Your task to perform on an android device: Is it going to rain this weekend? Image 0: 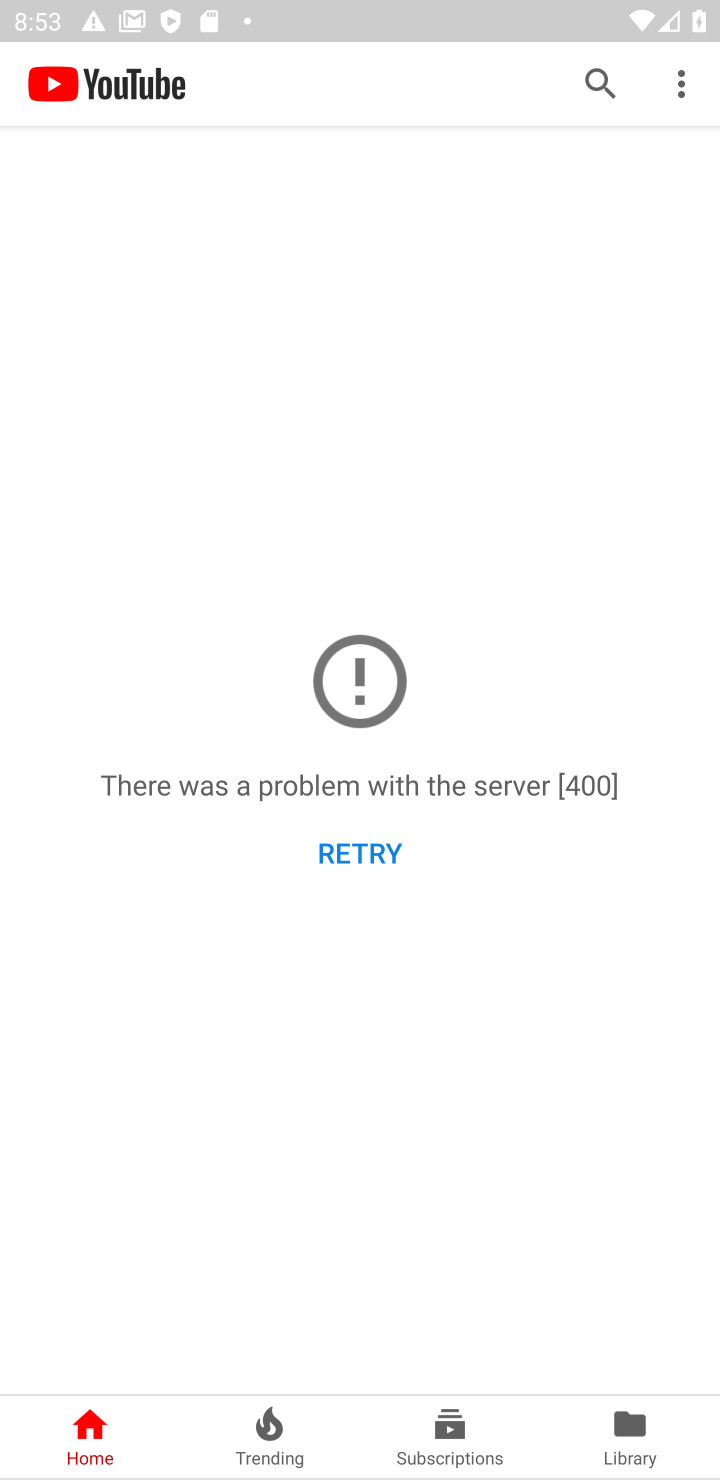
Step 0: press home button
Your task to perform on an android device: Is it going to rain this weekend? Image 1: 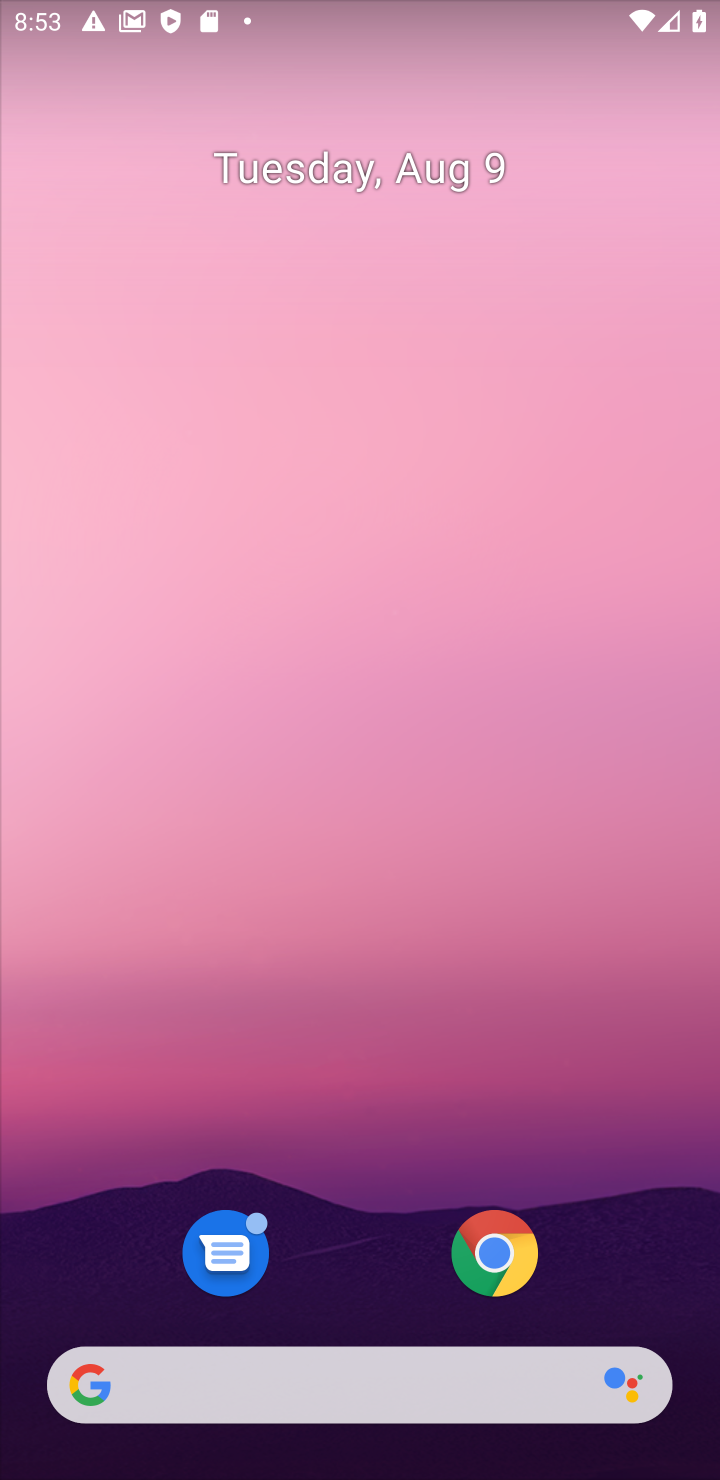
Step 1: drag from (384, 1163) to (484, 3)
Your task to perform on an android device: Is it going to rain this weekend? Image 2: 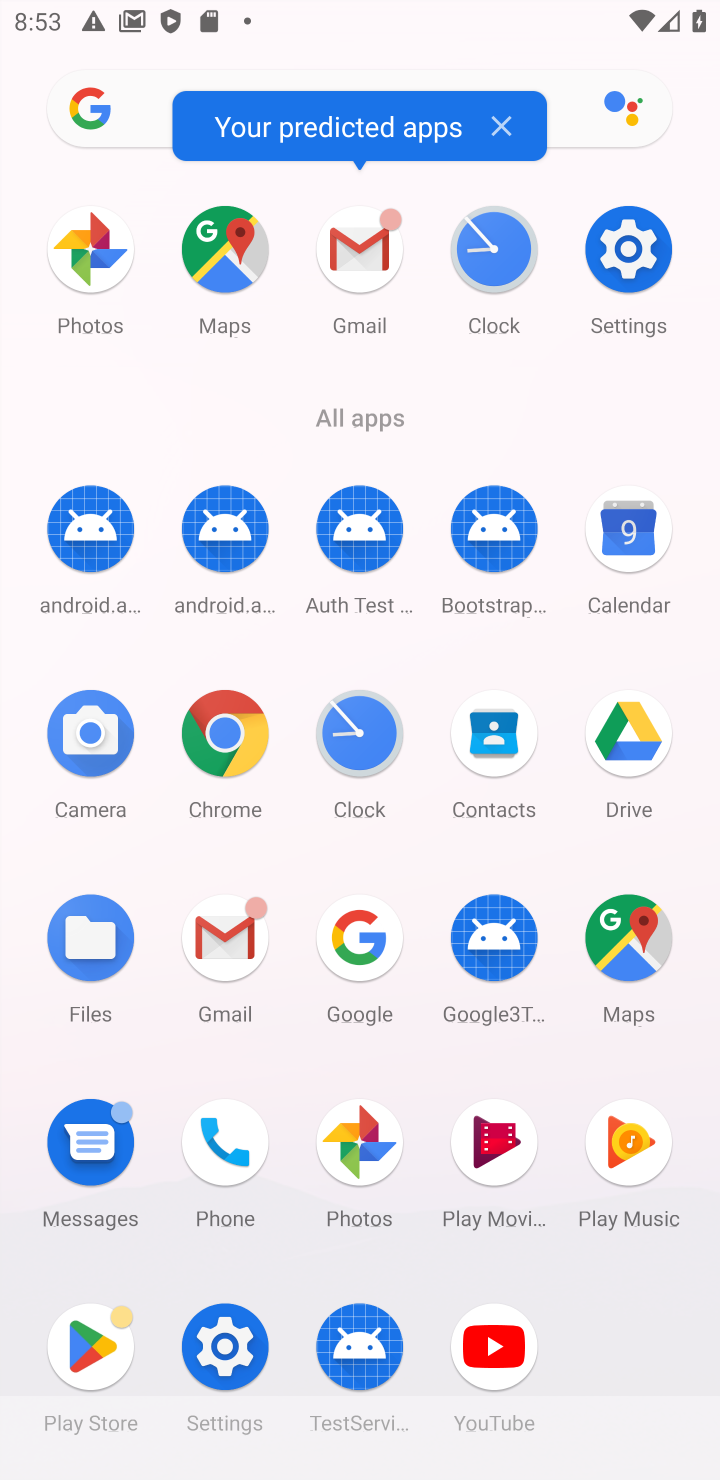
Step 2: click (221, 728)
Your task to perform on an android device: Is it going to rain this weekend? Image 3: 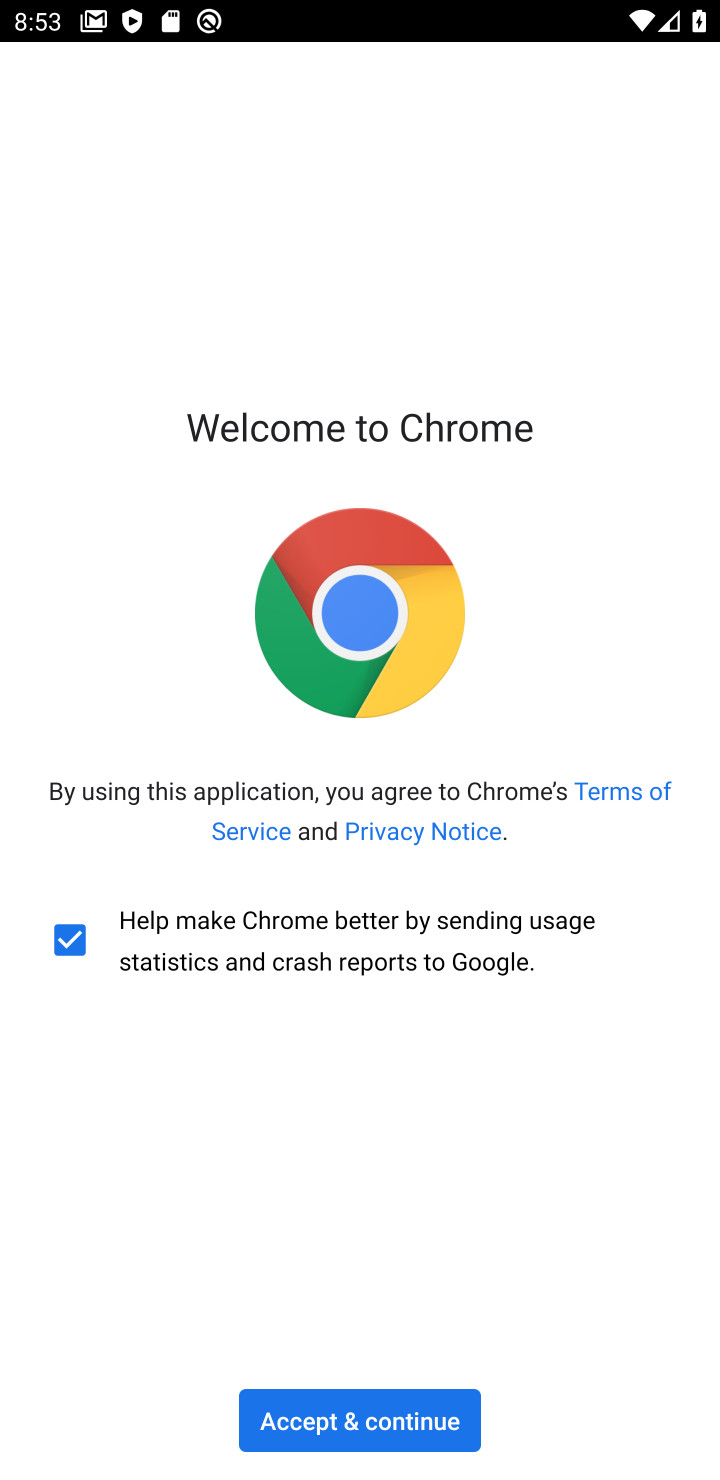
Step 3: click (447, 1422)
Your task to perform on an android device: Is it going to rain this weekend? Image 4: 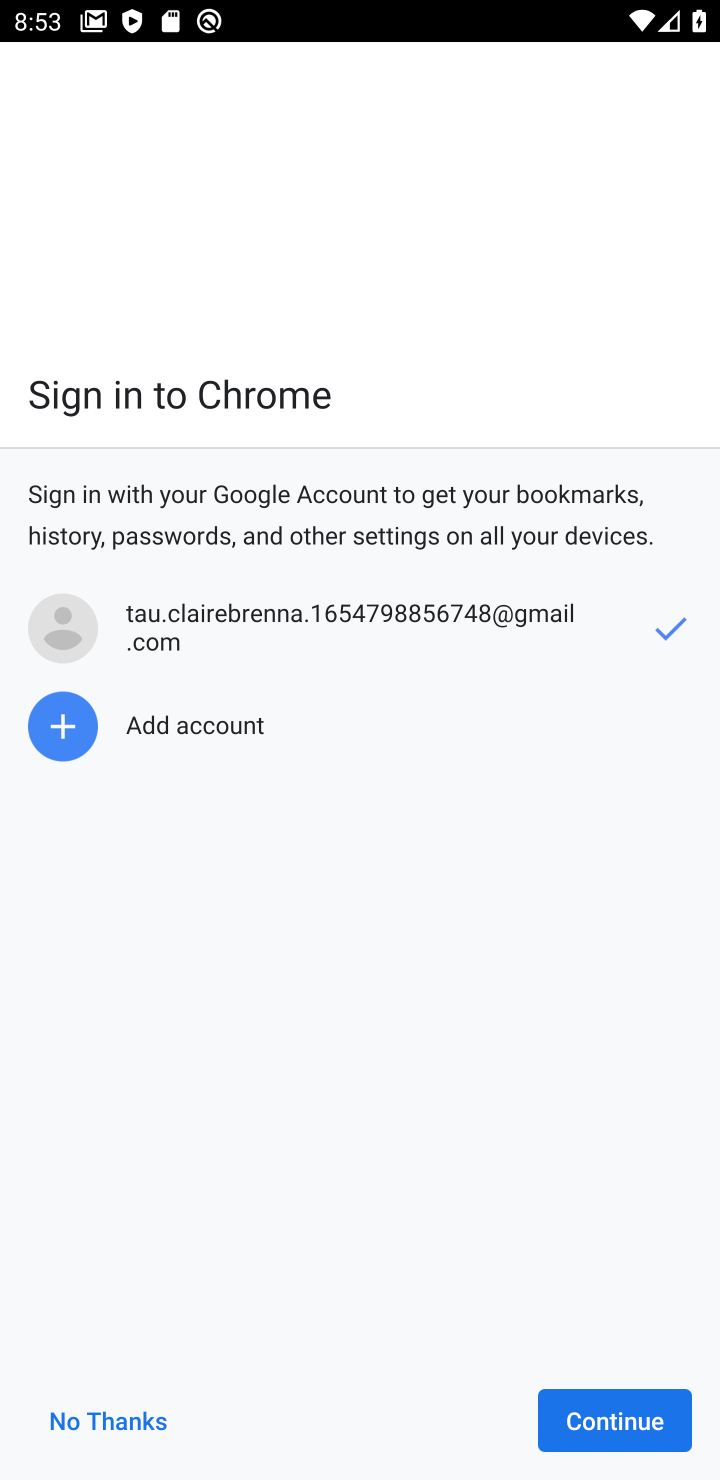
Step 4: click (629, 1421)
Your task to perform on an android device: Is it going to rain this weekend? Image 5: 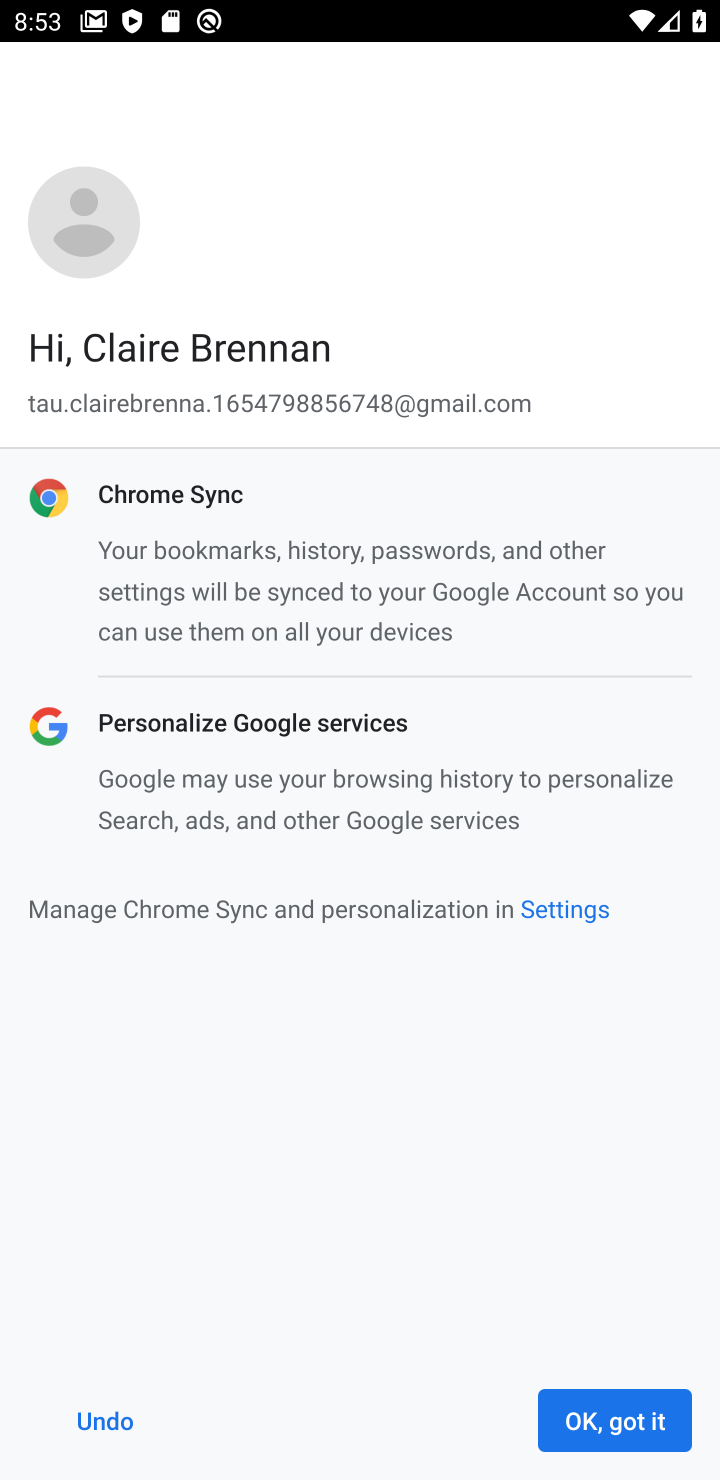
Step 5: click (629, 1421)
Your task to perform on an android device: Is it going to rain this weekend? Image 6: 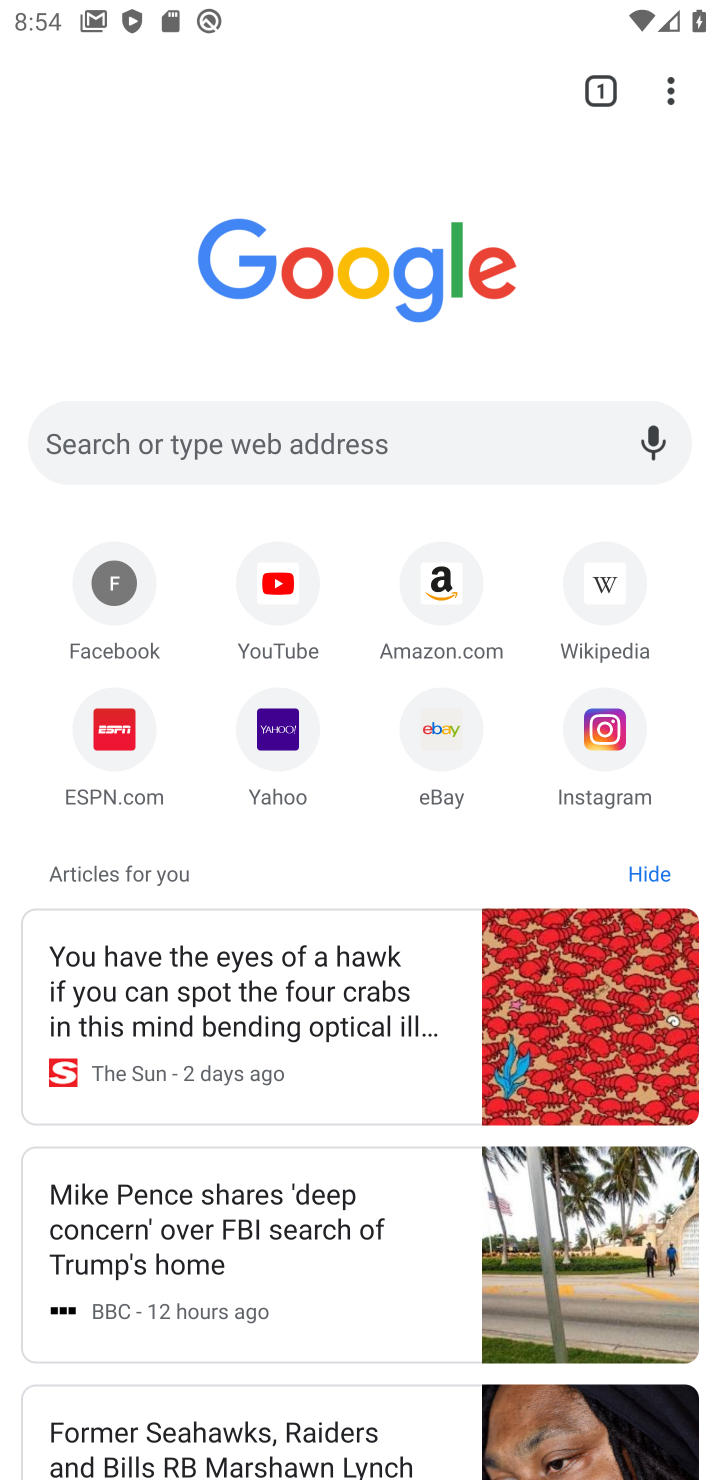
Step 6: click (407, 444)
Your task to perform on an android device: Is it going to rain this weekend? Image 7: 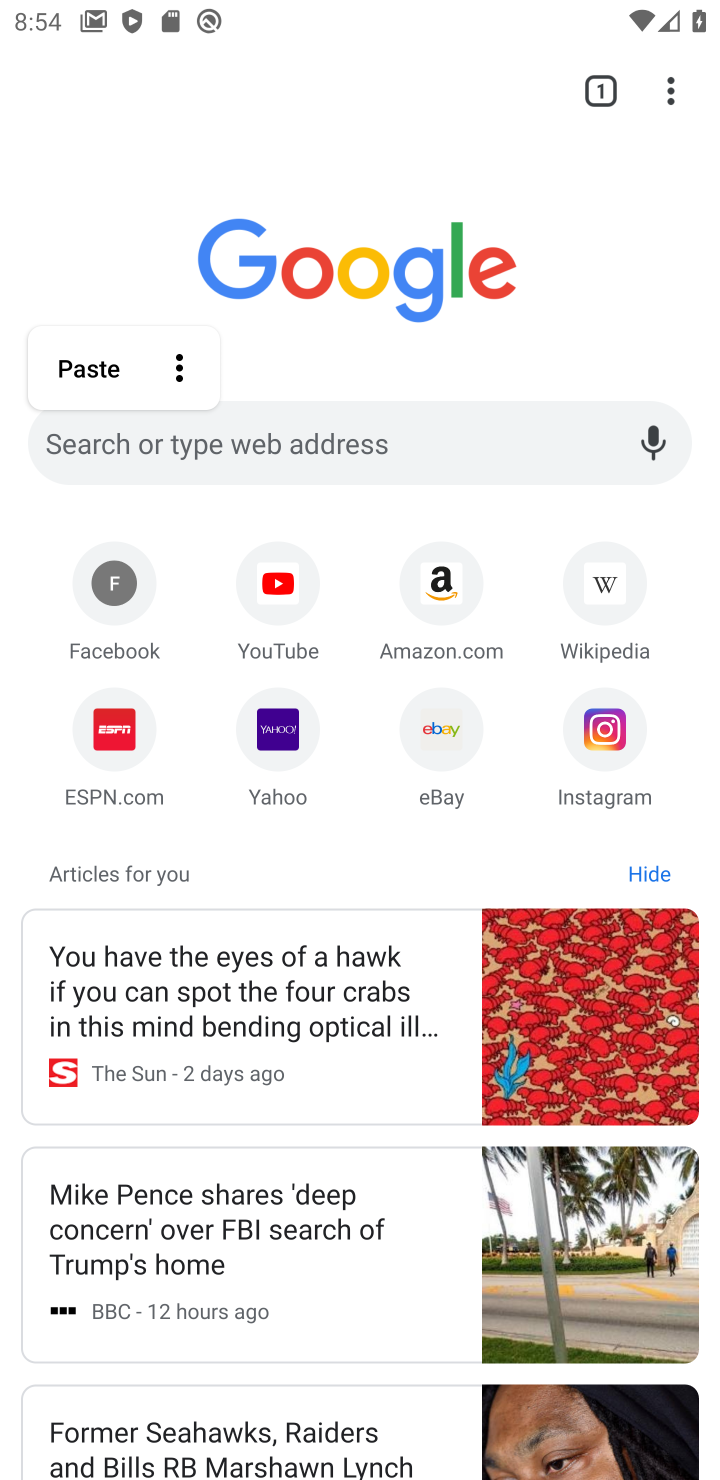
Step 7: type "weather"
Your task to perform on an android device: Is it going to rain this weekend? Image 8: 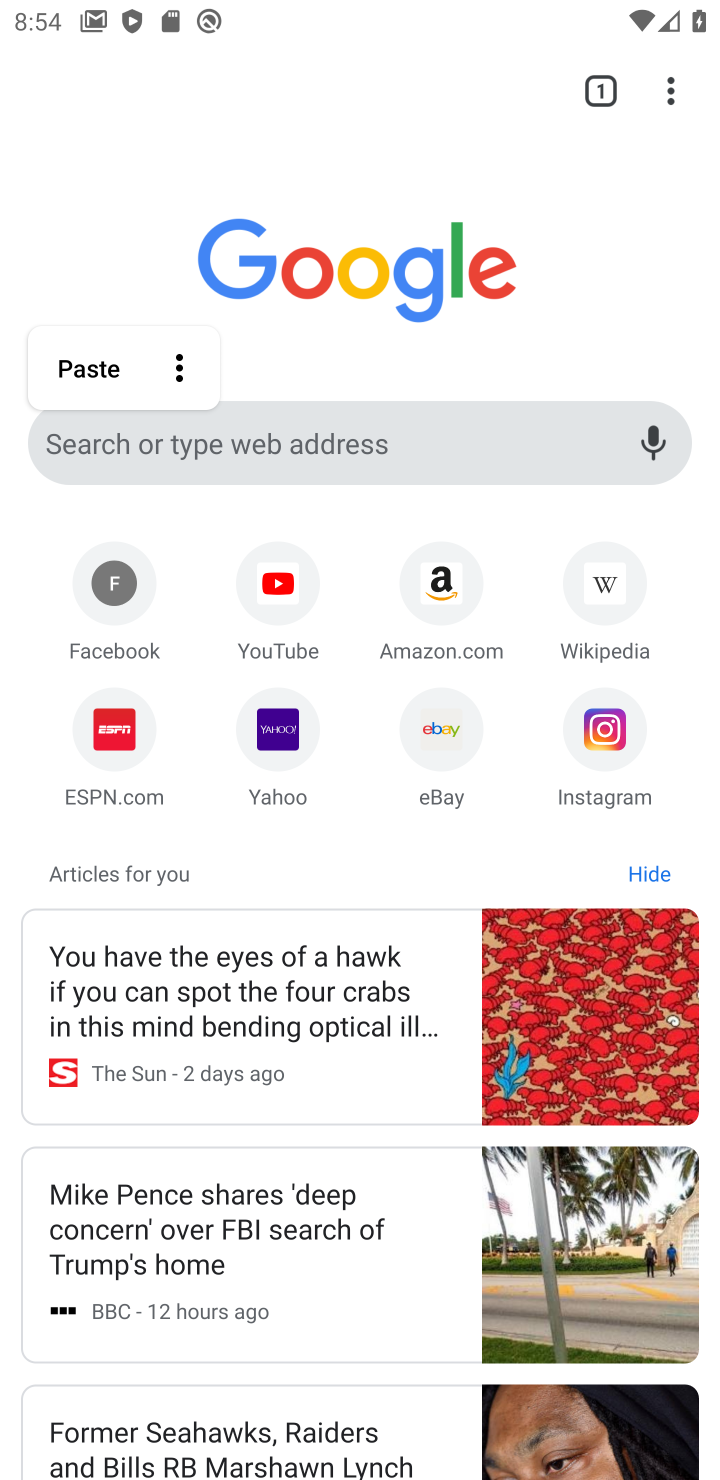
Step 8: click (457, 440)
Your task to perform on an android device: Is it going to rain this weekend? Image 9: 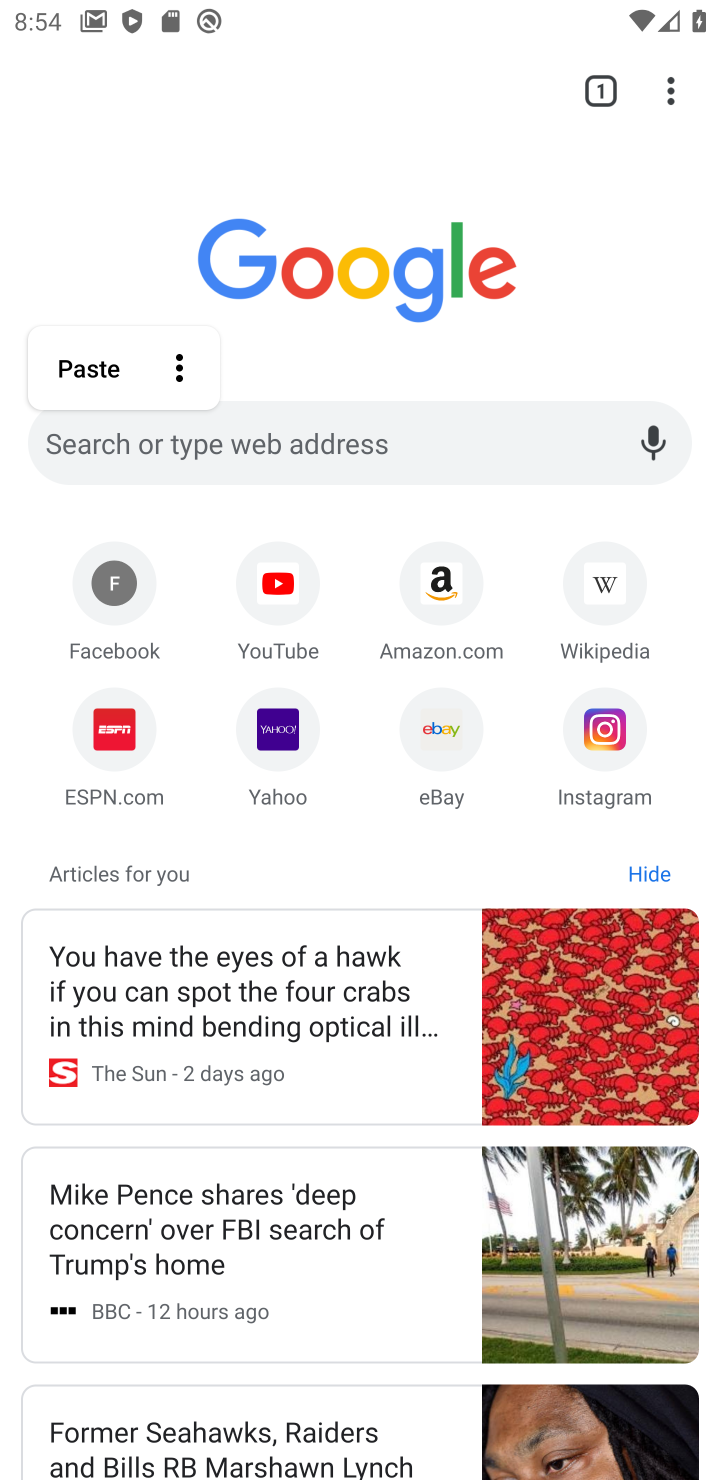
Step 9: type "weather"
Your task to perform on an android device: Is it going to rain this weekend? Image 10: 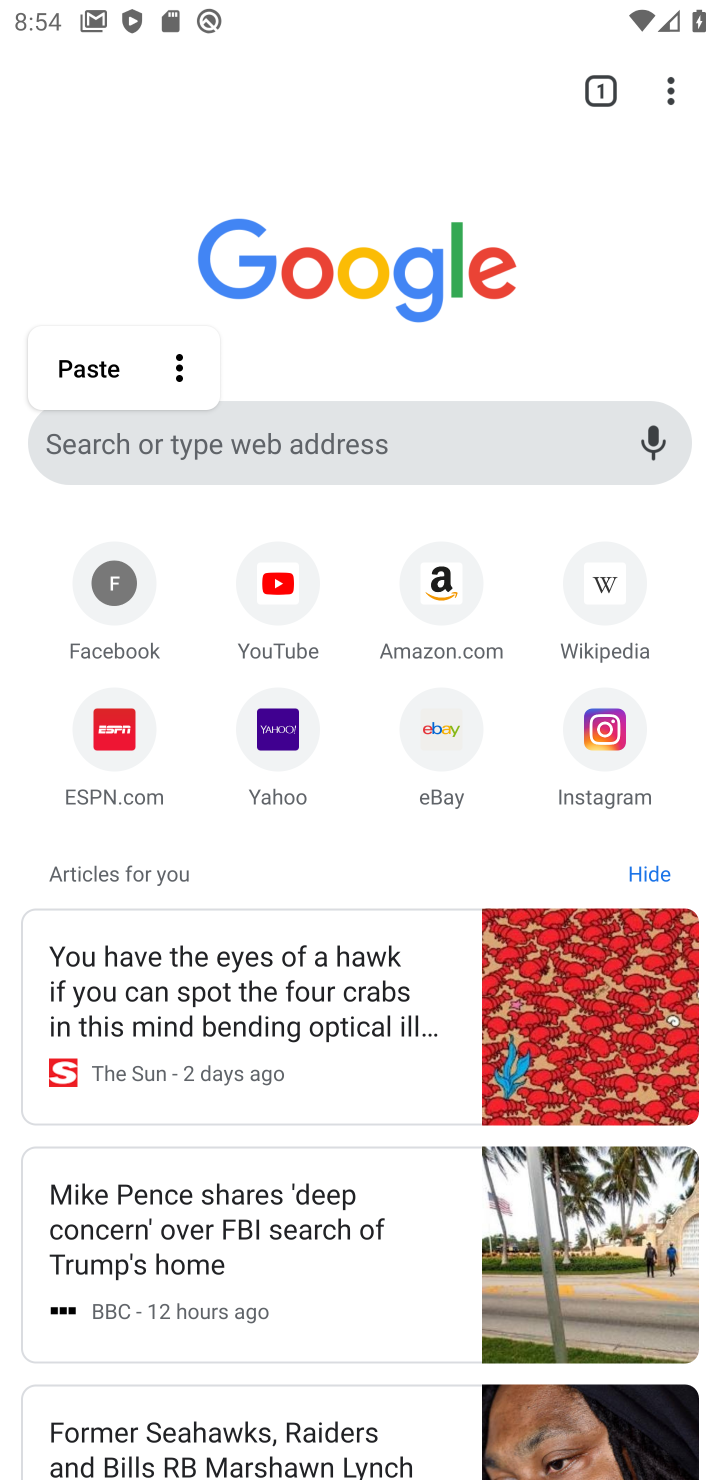
Step 10: click (120, 490)
Your task to perform on an android device: Is it going to rain this weekend? Image 11: 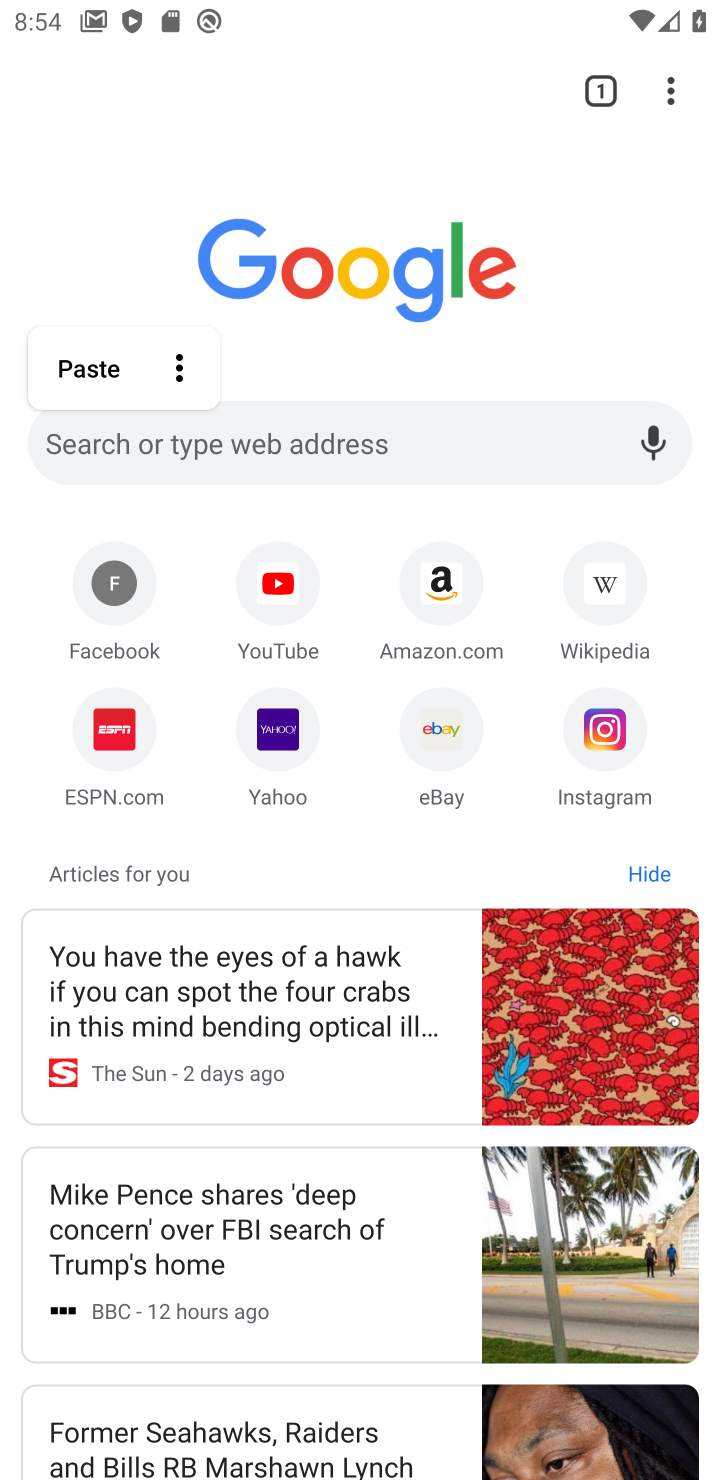
Step 11: click (113, 344)
Your task to perform on an android device: Is it going to rain this weekend? Image 12: 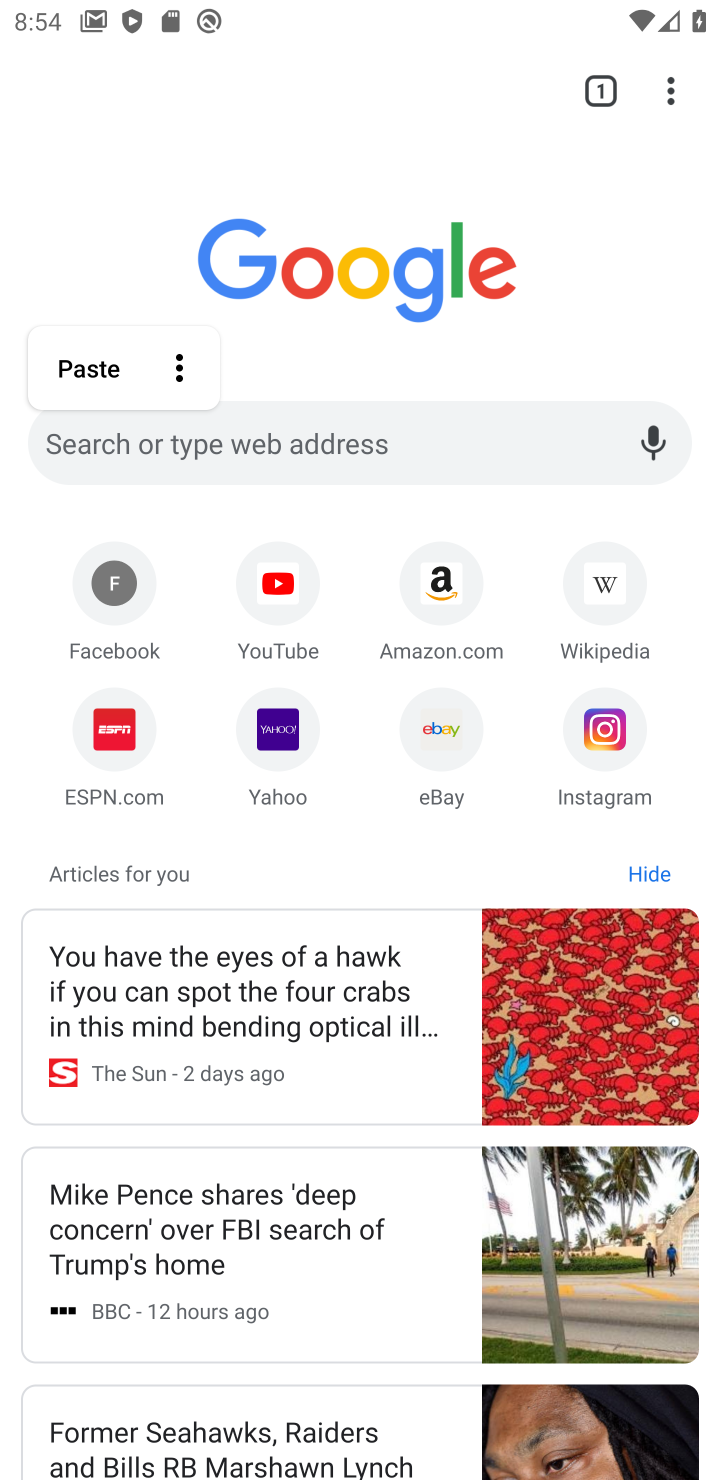
Step 12: click (118, 382)
Your task to perform on an android device: Is it going to rain this weekend? Image 13: 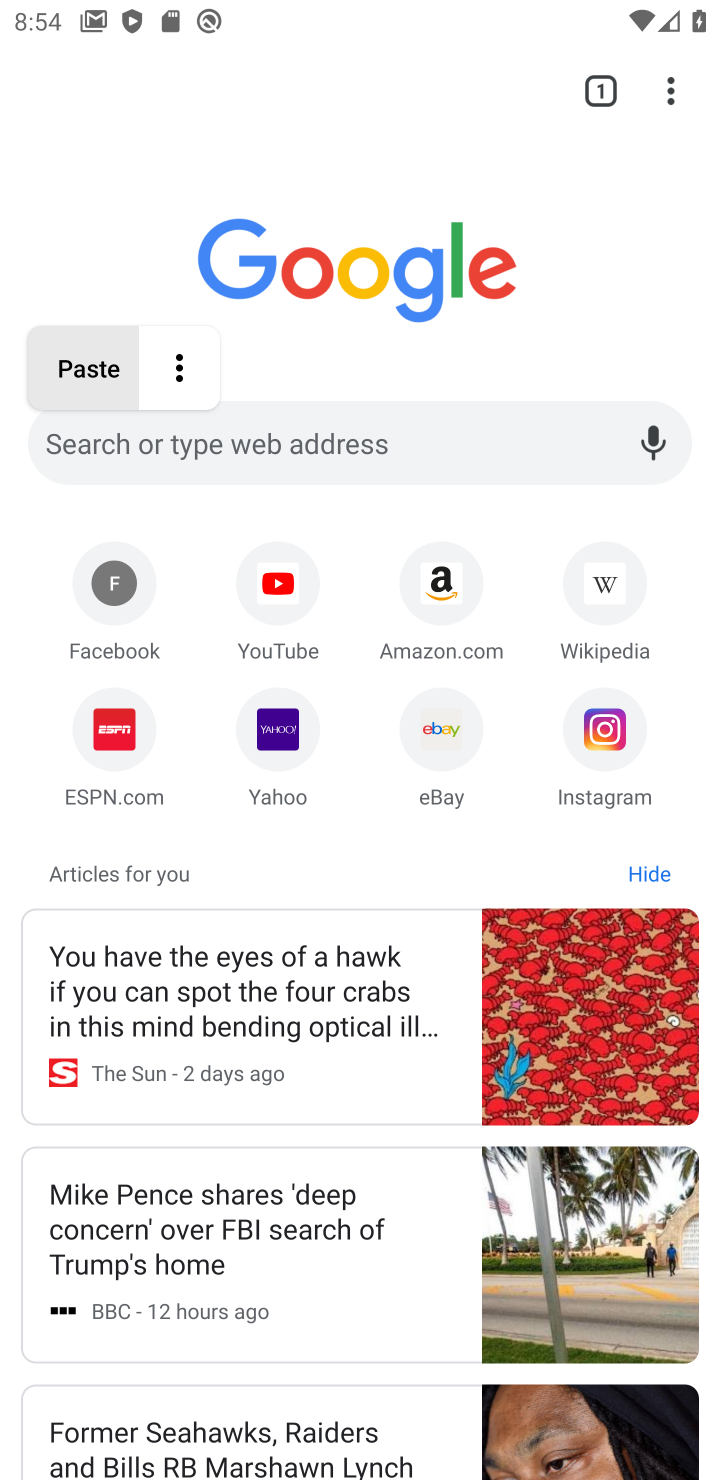
Step 13: click (111, 380)
Your task to perform on an android device: Is it going to rain this weekend? Image 14: 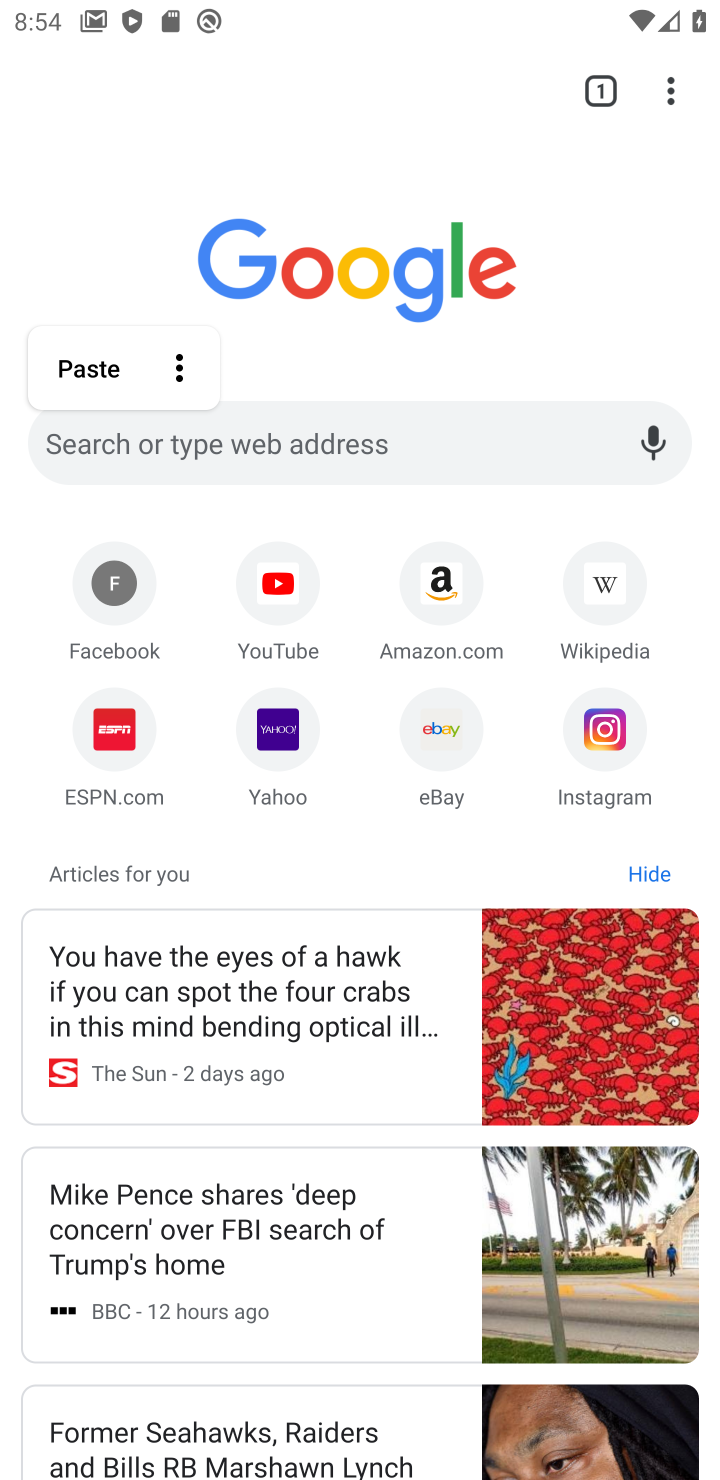
Step 14: click (139, 447)
Your task to perform on an android device: Is it going to rain this weekend? Image 15: 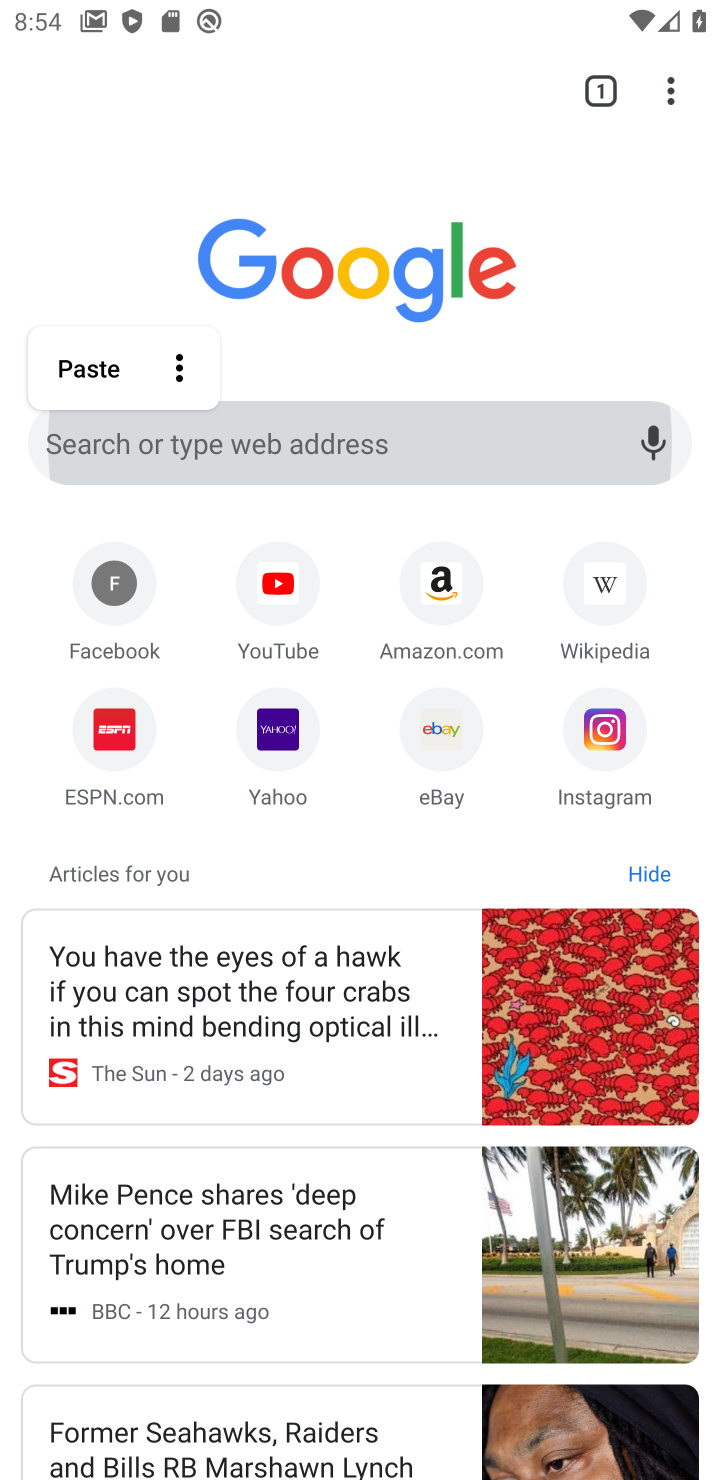
Step 15: click (139, 447)
Your task to perform on an android device: Is it going to rain this weekend? Image 16: 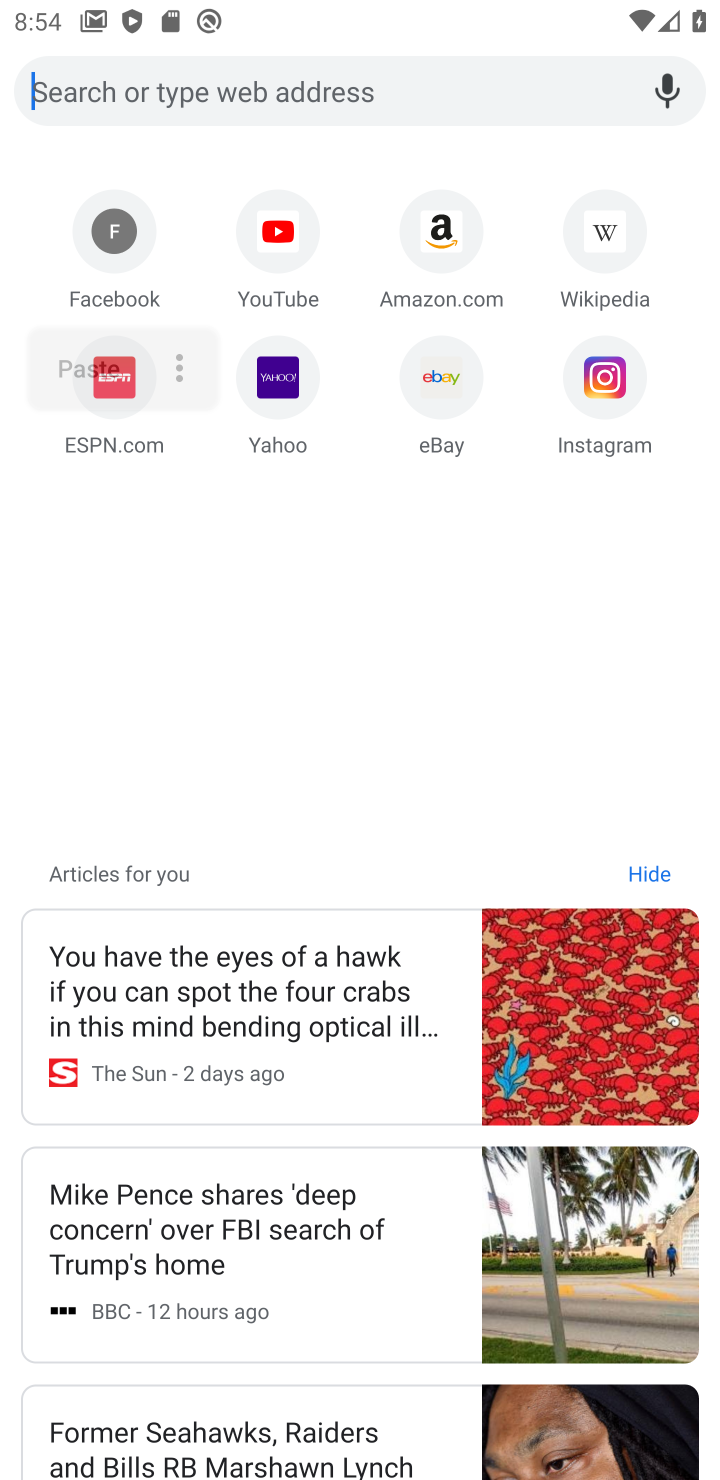
Step 16: click (339, 384)
Your task to perform on an android device: Is it going to rain this weekend? Image 17: 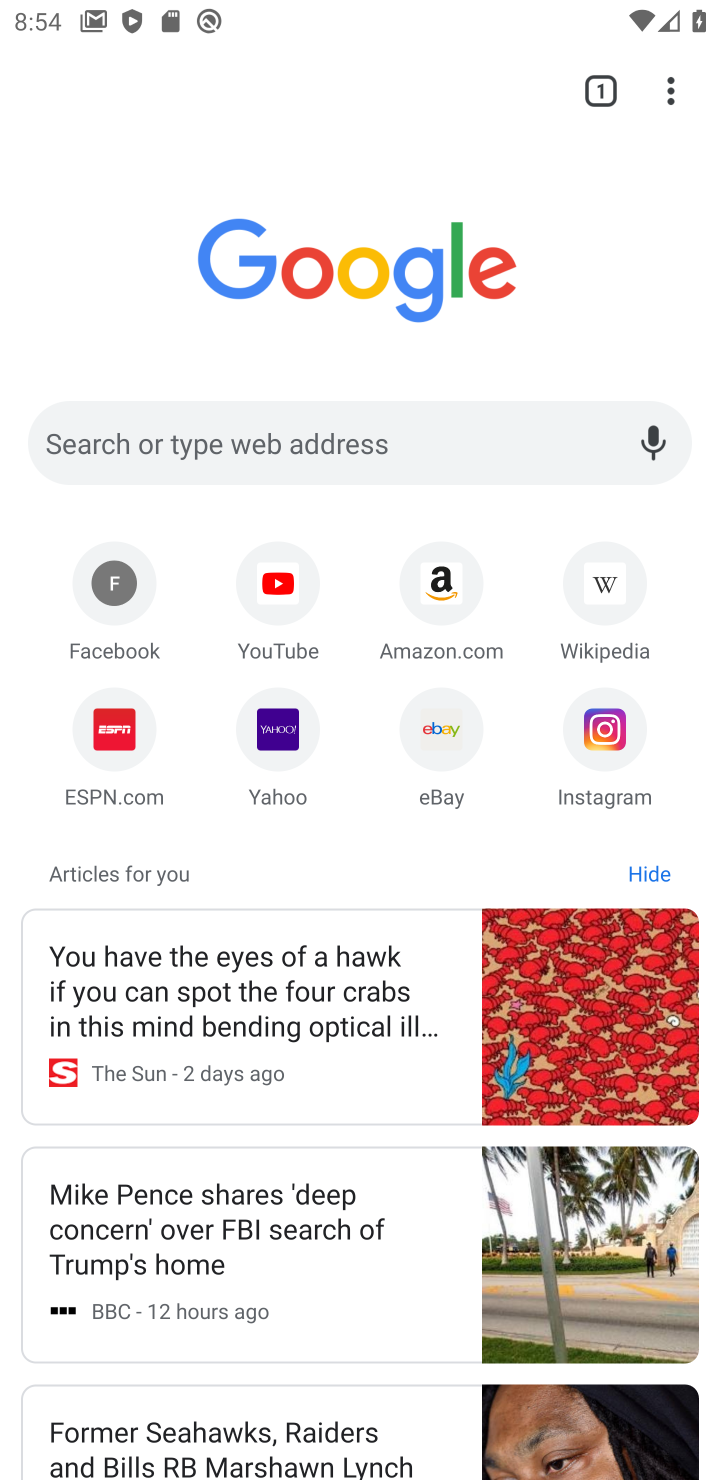
Step 17: click (385, 84)
Your task to perform on an android device: Is it going to rain this weekend? Image 18: 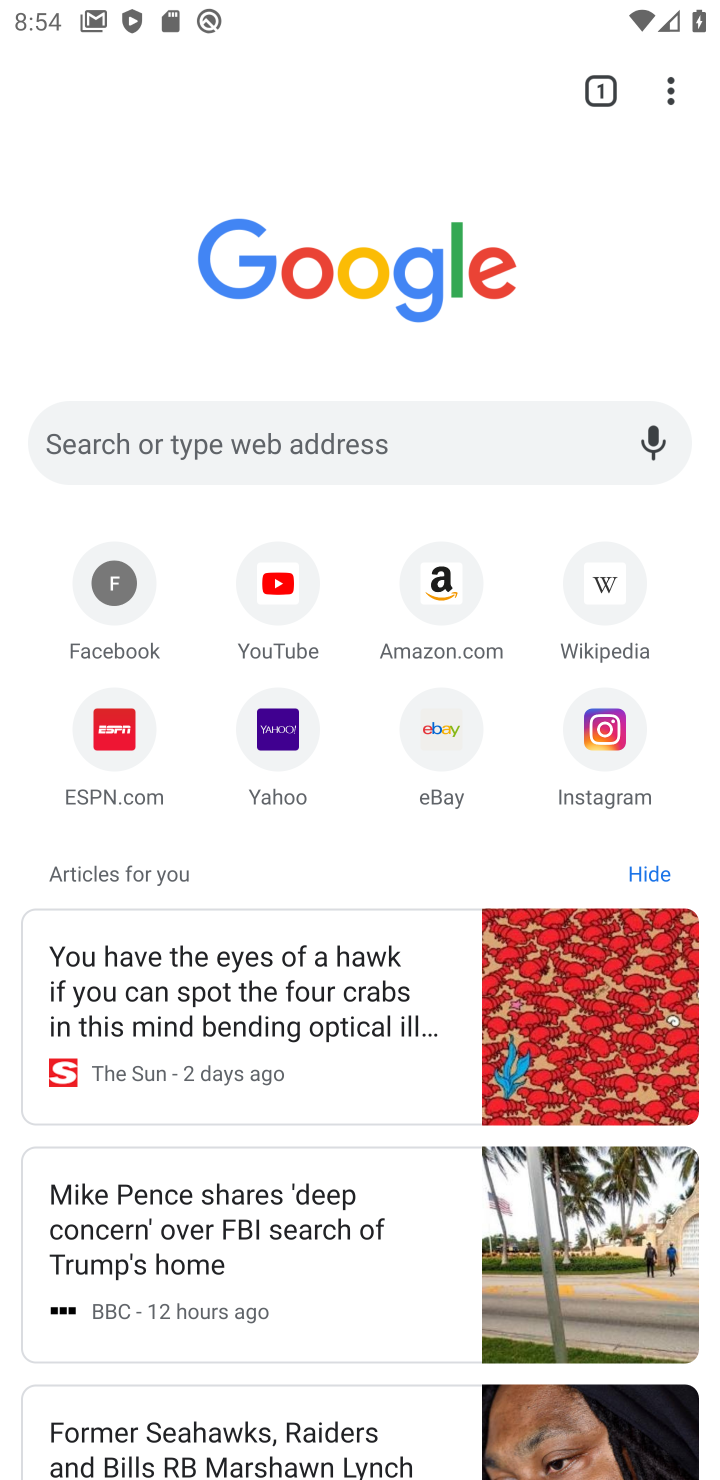
Step 18: click (403, 464)
Your task to perform on an android device: Is it going to rain this weekend? Image 19: 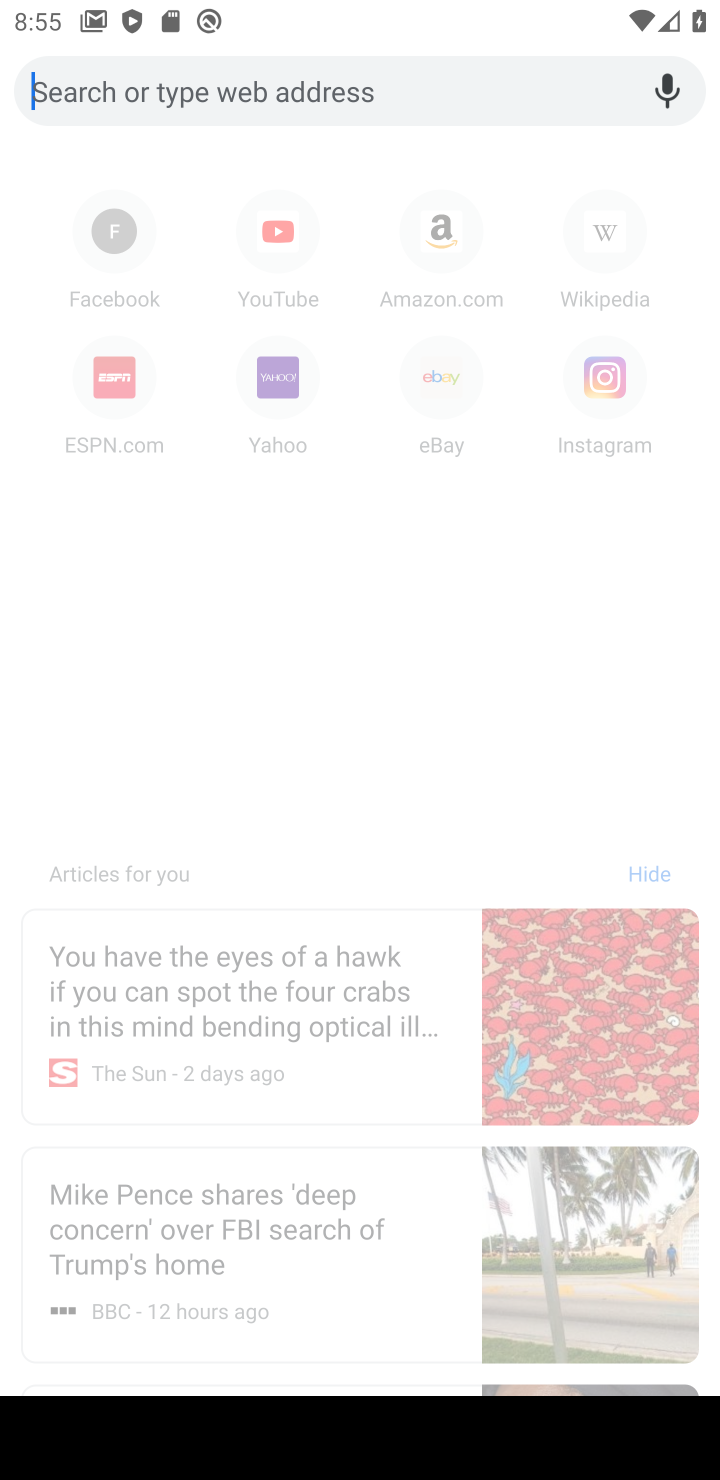
Step 19: type "weather"
Your task to perform on an android device: Is it going to rain this weekend? Image 20: 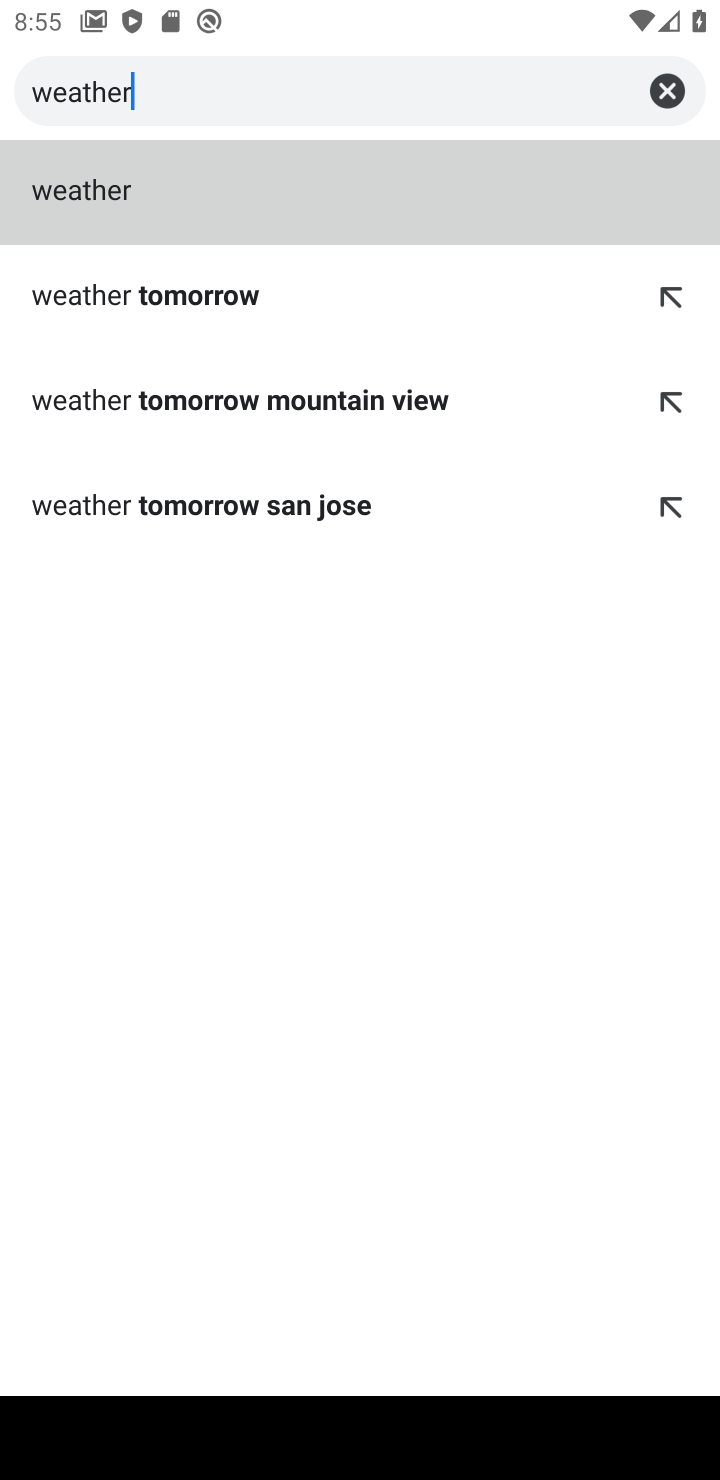
Step 20: click (119, 173)
Your task to perform on an android device: Is it going to rain this weekend? Image 21: 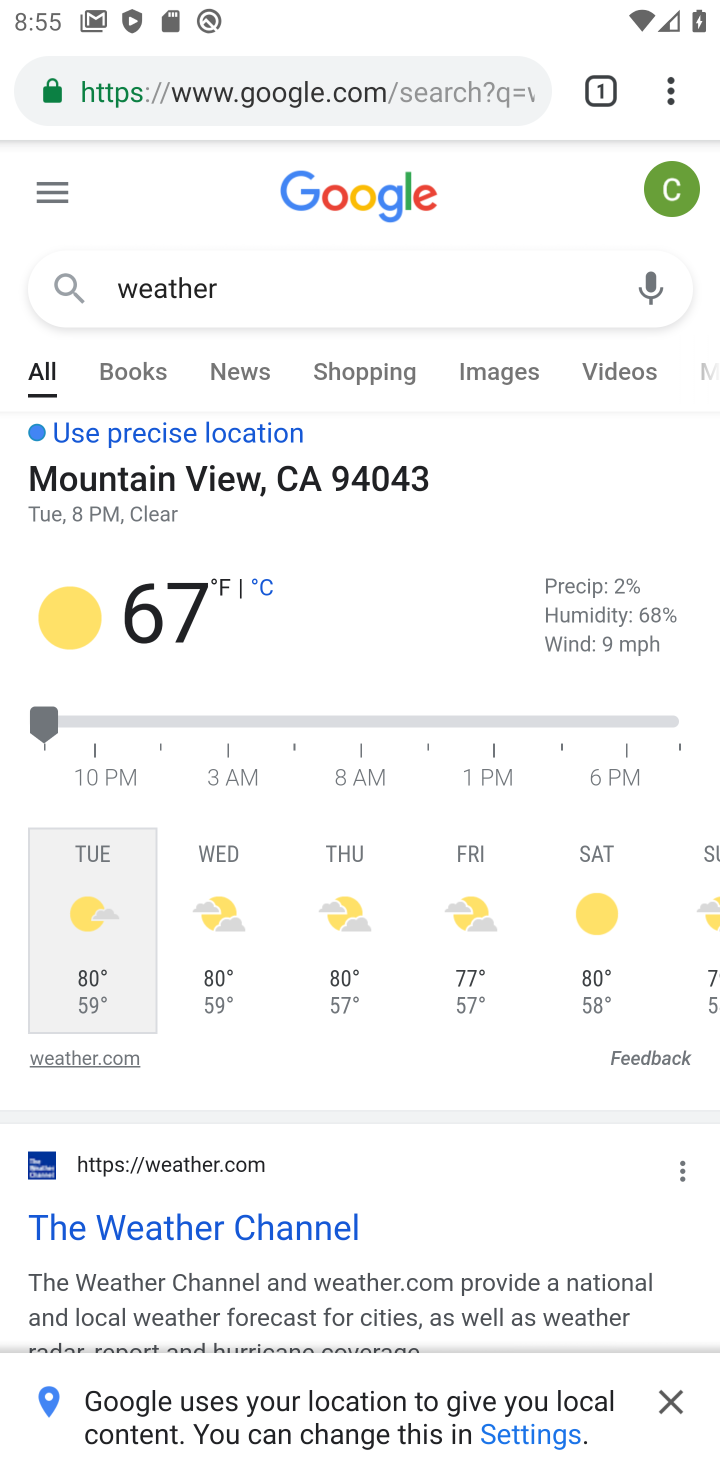
Step 21: click (613, 909)
Your task to perform on an android device: Is it going to rain this weekend? Image 22: 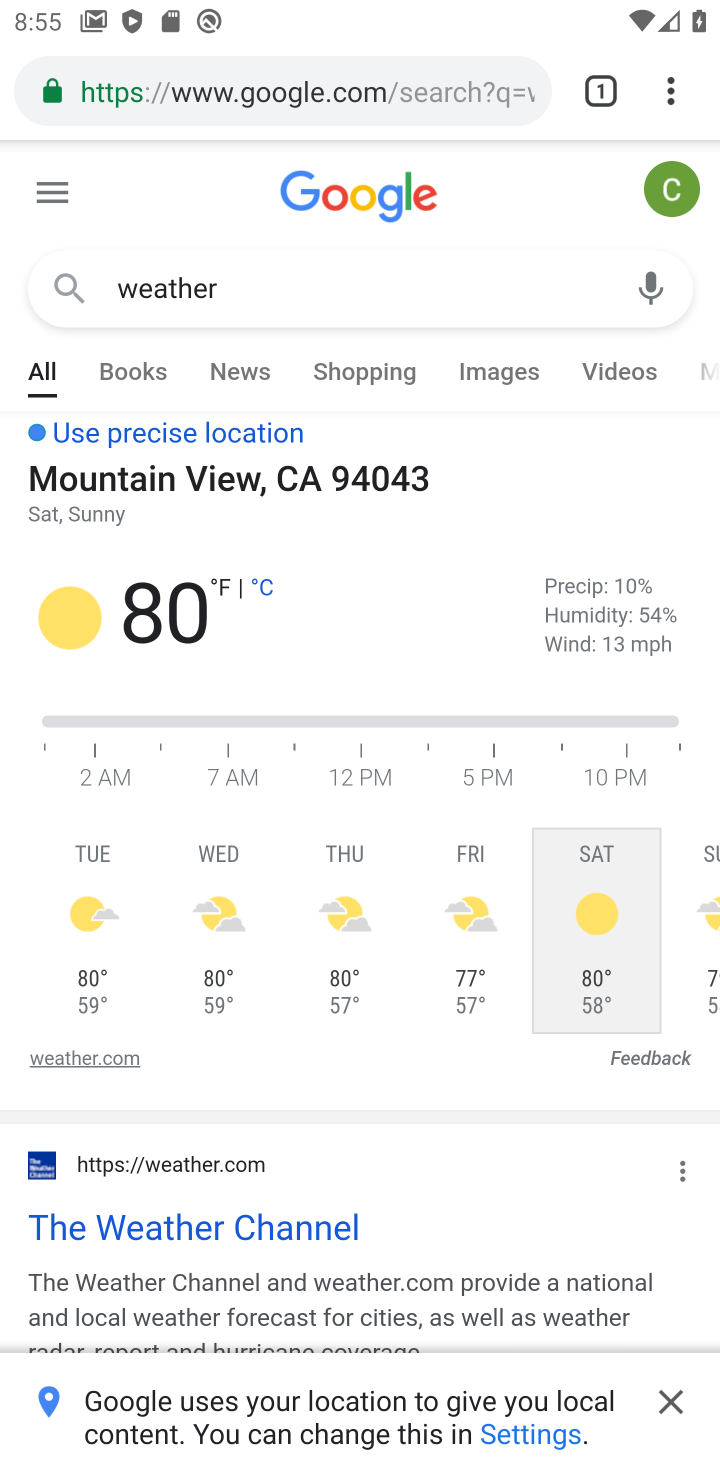
Step 22: task complete